Your task to perform on an android device: Open notification settings Image 0: 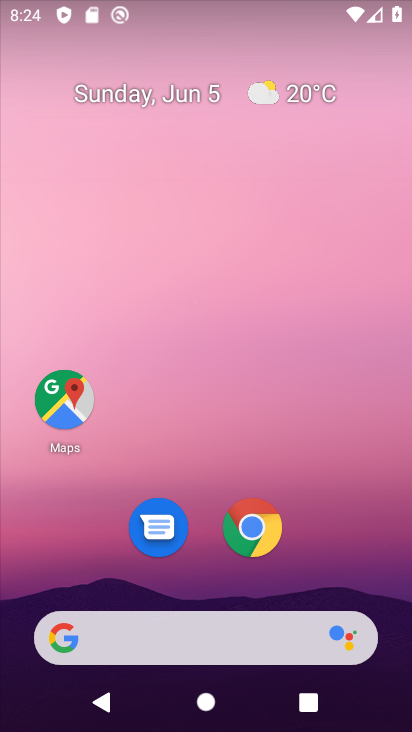
Step 0: drag from (299, 552) to (199, 125)
Your task to perform on an android device: Open notification settings Image 1: 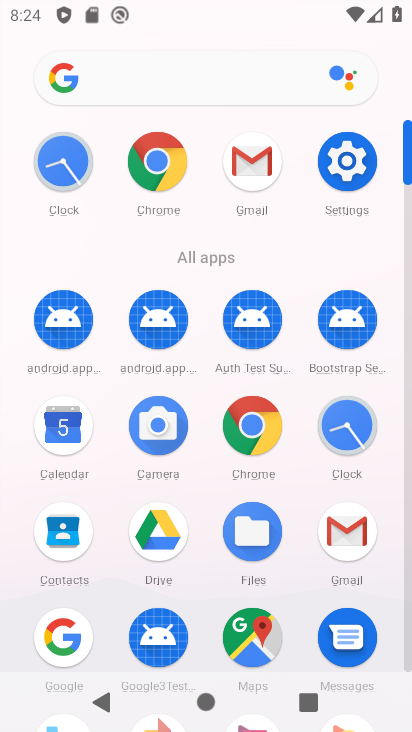
Step 1: click (351, 173)
Your task to perform on an android device: Open notification settings Image 2: 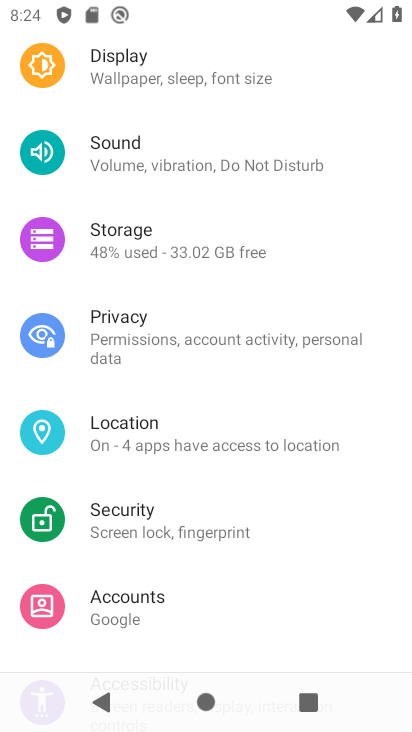
Step 2: drag from (160, 171) to (259, 659)
Your task to perform on an android device: Open notification settings Image 3: 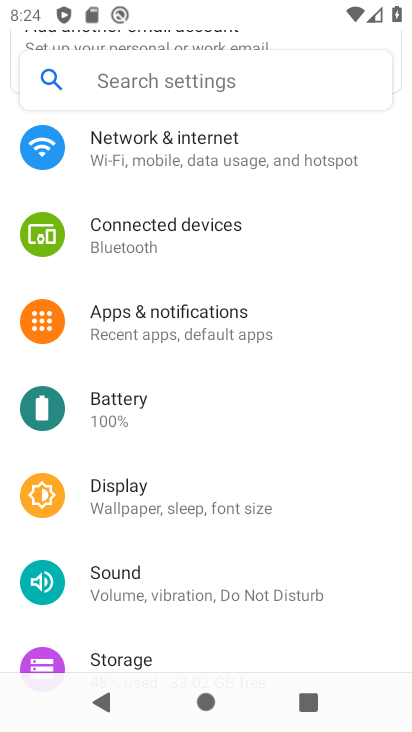
Step 3: click (196, 325)
Your task to perform on an android device: Open notification settings Image 4: 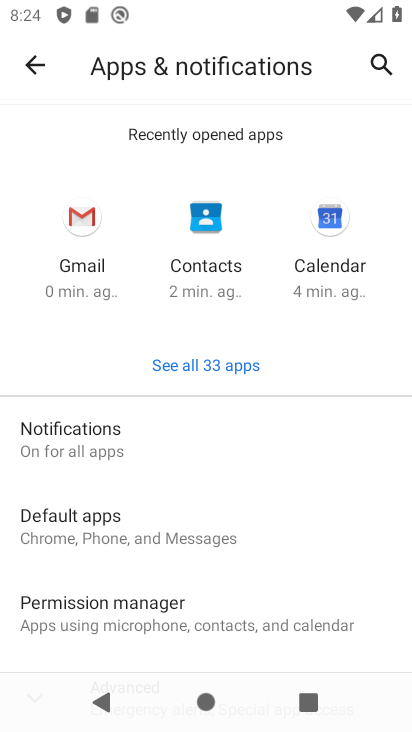
Step 4: click (74, 435)
Your task to perform on an android device: Open notification settings Image 5: 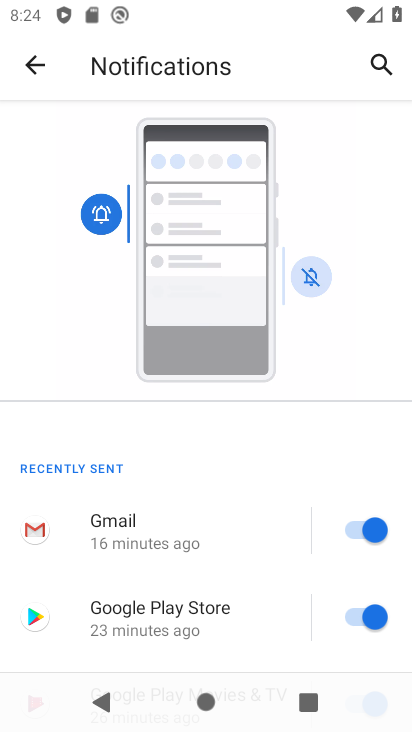
Step 5: task complete